Your task to perform on an android device: What's on my calendar tomorrow? Image 0: 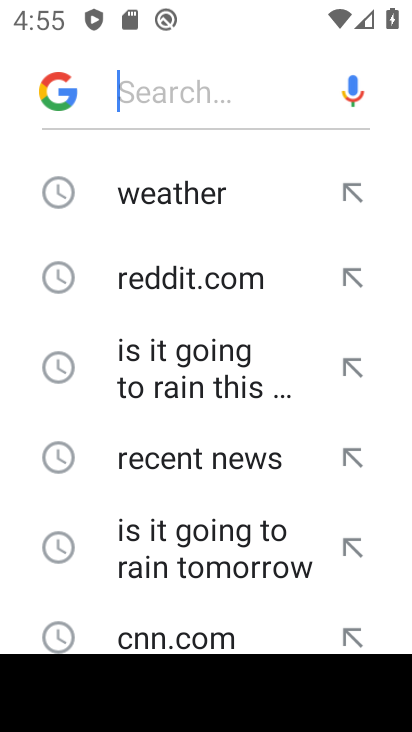
Step 0: press home button
Your task to perform on an android device: What's on my calendar tomorrow? Image 1: 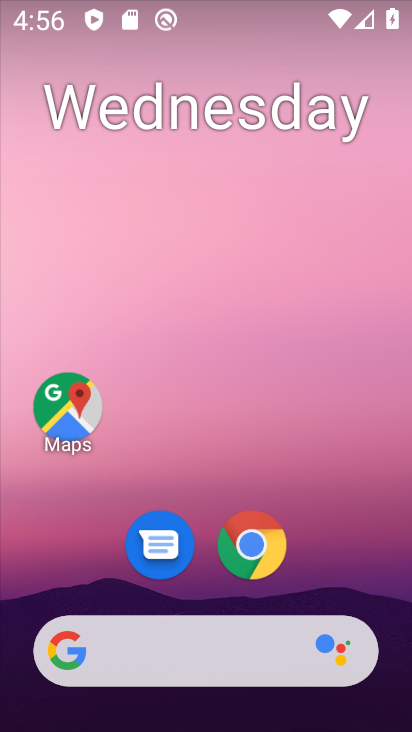
Step 1: drag from (317, 423) to (343, 48)
Your task to perform on an android device: What's on my calendar tomorrow? Image 2: 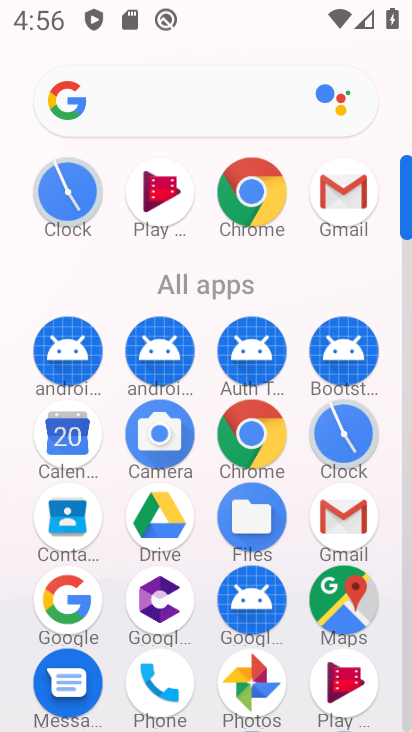
Step 2: click (60, 437)
Your task to perform on an android device: What's on my calendar tomorrow? Image 3: 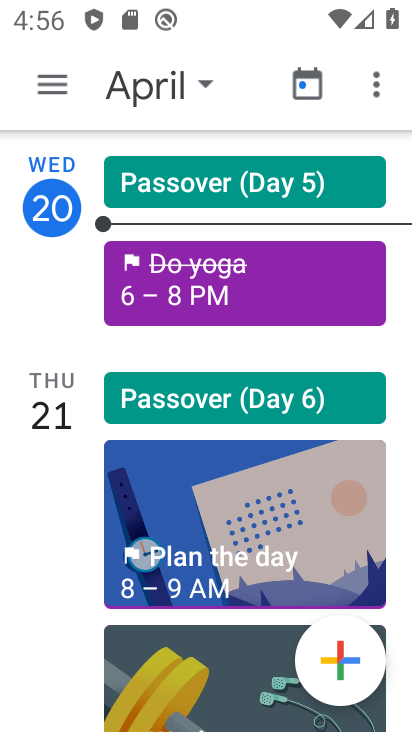
Step 3: task complete